Your task to perform on an android device: Clear the shopping cart on target.com. Search for acer predator on target.com, select the first entry, and add it to the cart. Image 0: 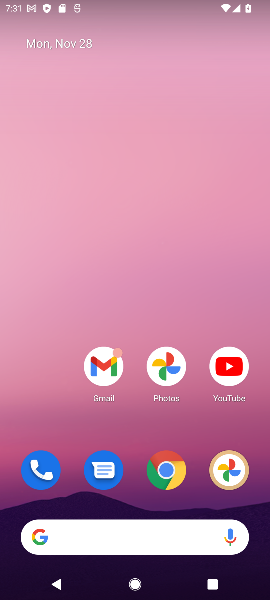
Step 0: drag from (138, 487) to (194, 59)
Your task to perform on an android device: Clear the shopping cart on target.com. Search for acer predator on target.com, select the first entry, and add it to the cart. Image 1: 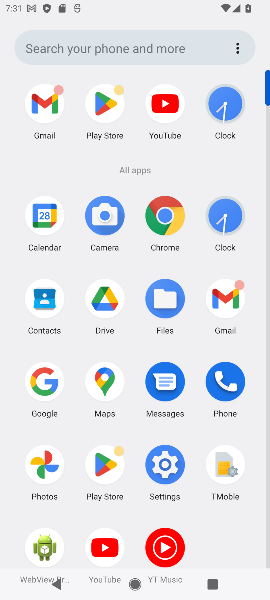
Step 1: click (155, 247)
Your task to perform on an android device: Clear the shopping cart on target.com. Search for acer predator on target.com, select the first entry, and add it to the cart. Image 2: 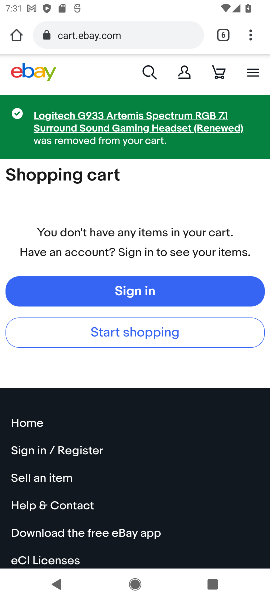
Step 2: click (107, 31)
Your task to perform on an android device: Clear the shopping cart on target.com. Search for acer predator on target.com, select the first entry, and add it to the cart. Image 3: 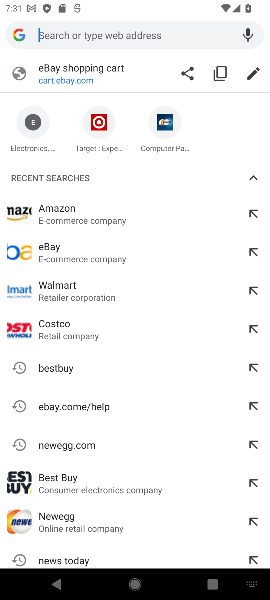
Step 3: type "target.com"
Your task to perform on an android device: Clear the shopping cart on target.com. Search for acer predator on target.com, select the first entry, and add it to the cart. Image 4: 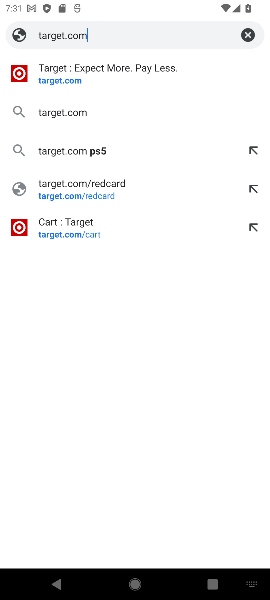
Step 4: click (62, 77)
Your task to perform on an android device: Clear the shopping cart on target.com. Search for acer predator on target.com, select the first entry, and add it to the cart. Image 5: 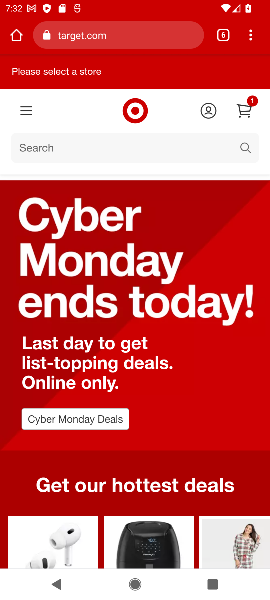
Step 5: click (243, 111)
Your task to perform on an android device: Clear the shopping cart on target.com. Search for acer predator on target.com, select the first entry, and add it to the cart. Image 6: 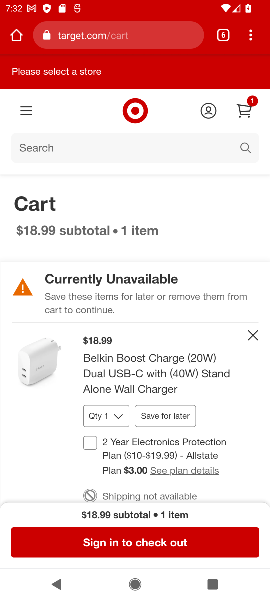
Step 6: click (257, 332)
Your task to perform on an android device: Clear the shopping cart on target.com. Search for acer predator on target.com, select the first entry, and add it to the cart. Image 7: 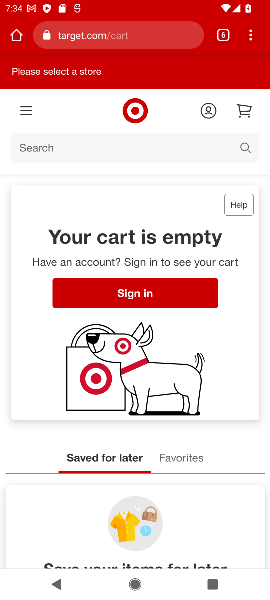
Step 7: click (95, 141)
Your task to perform on an android device: Clear the shopping cart on target.com. Search for acer predator on target.com, select the first entry, and add it to the cart. Image 8: 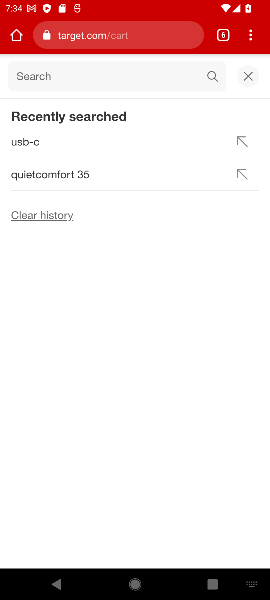
Step 8: type "acer predator "
Your task to perform on an android device: Clear the shopping cart on target.com. Search for acer predator on target.com, select the first entry, and add it to the cart. Image 9: 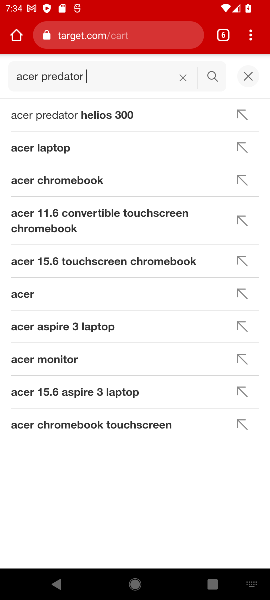
Step 9: click (102, 109)
Your task to perform on an android device: Clear the shopping cart on target.com. Search for acer predator on target.com, select the first entry, and add it to the cart. Image 10: 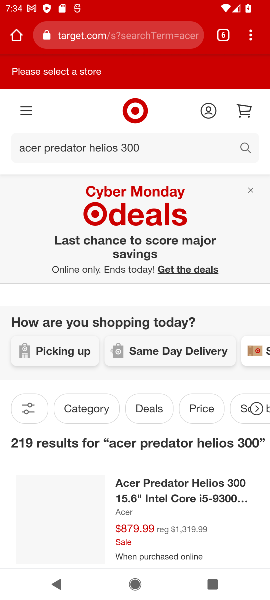
Step 10: drag from (140, 448) to (140, 309)
Your task to perform on an android device: Clear the shopping cart on target.com. Search for acer predator on target.com, select the first entry, and add it to the cart. Image 11: 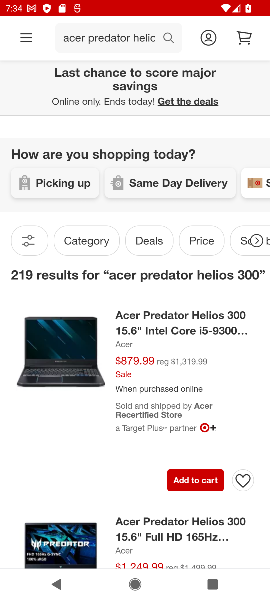
Step 11: click (186, 479)
Your task to perform on an android device: Clear the shopping cart on target.com. Search for acer predator on target.com, select the first entry, and add it to the cart. Image 12: 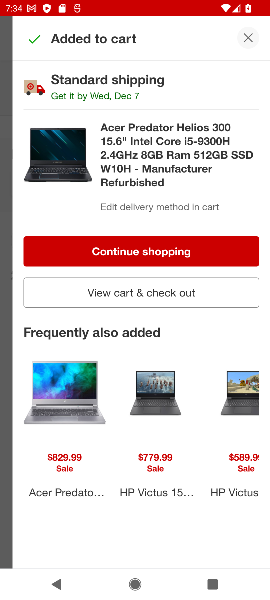
Step 12: click (135, 293)
Your task to perform on an android device: Clear the shopping cart on target.com. Search for acer predator on target.com, select the first entry, and add it to the cart. Image 13: 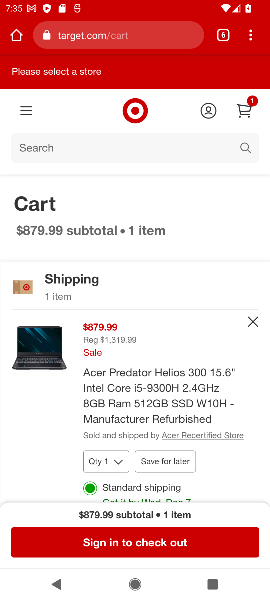
Step 13: click (117, 551)
Your task to perform on an android device: Clear the shopping cart on target.com. Search for acer predator on target.com, select the first entry, and add it to the cart. Image 14: 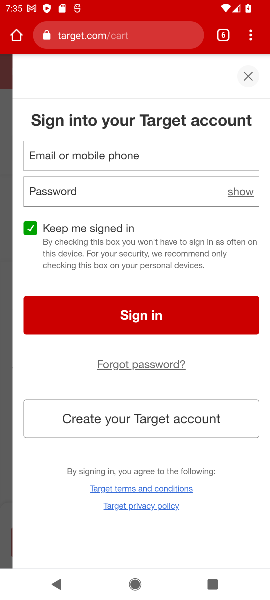
Step 14: task complete